Your task to perform on an android device: Go to Amazon Image 0: 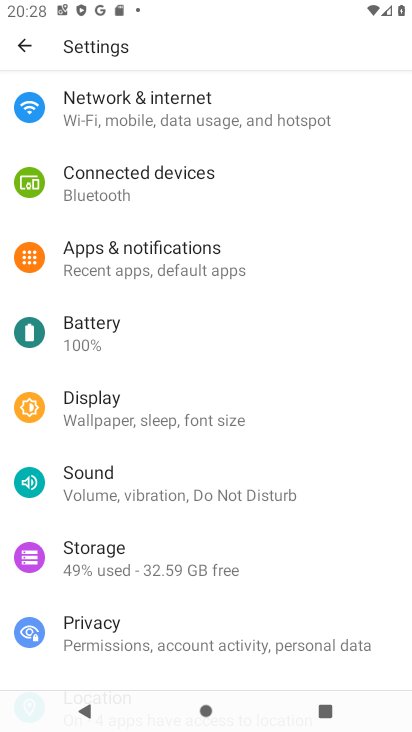
Step 0: press home button
Your task to perform on an android device: Go to Amazon Image 1: 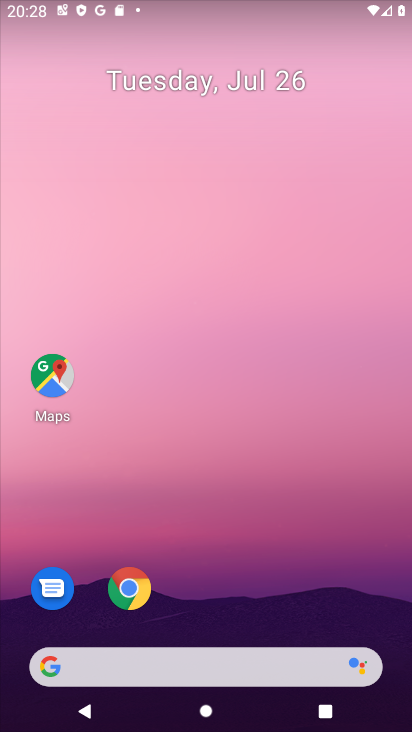
Step 1: click (46, 669)
Your task to perform on an android device: Go to Amazon Image 2: 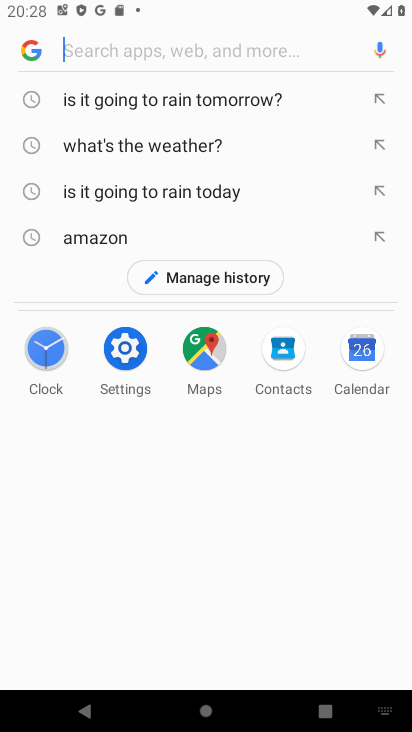
Step 2: type "Amazon"
Your task to perform on an android device: Go to Amazon Image 3: 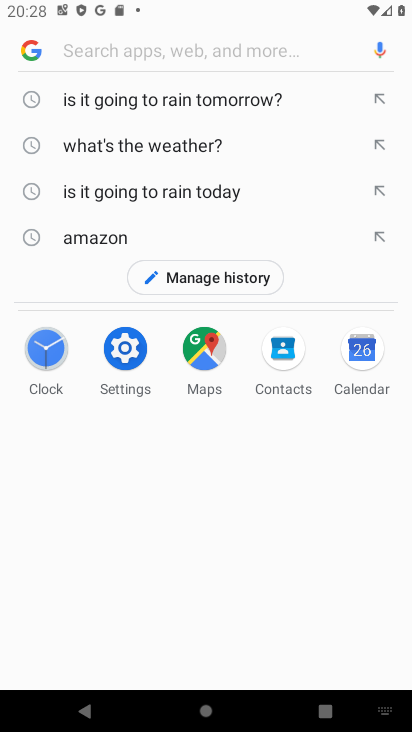
Step 3: click (114, 48)
Your task to perform on an android device: Go to Amazon Image 4: 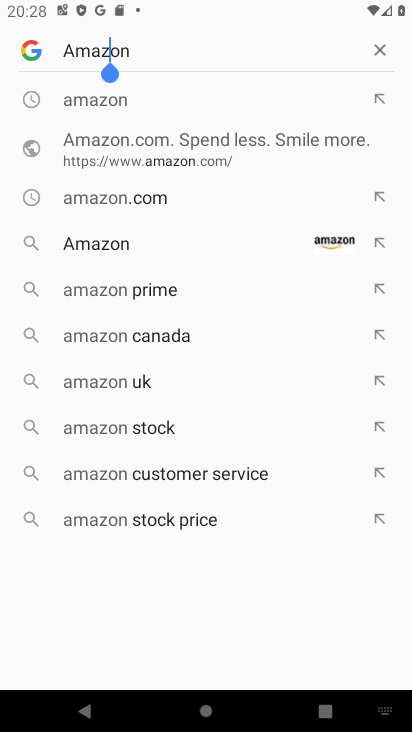
Step 4: click (328, 240)
Your task to perform on an android device: Go to Amazon Image 5: 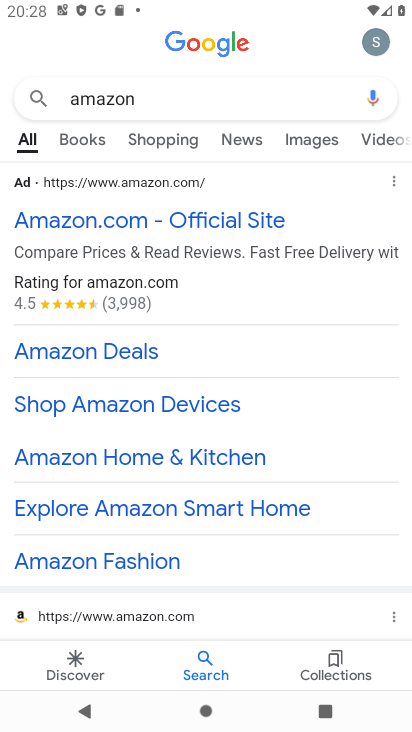
Step 5: click (140, 614)
Your task to perform on an android device: Go to Amazon Image 6: 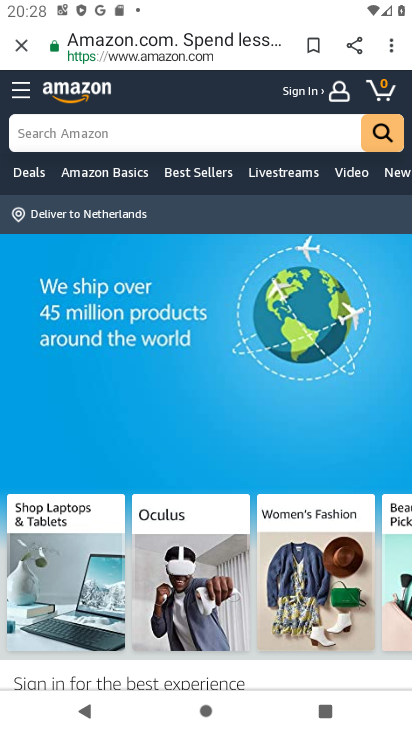
Step 6: task complete